Your task to perform on an android device: turn off notifications in google photos Image 0: 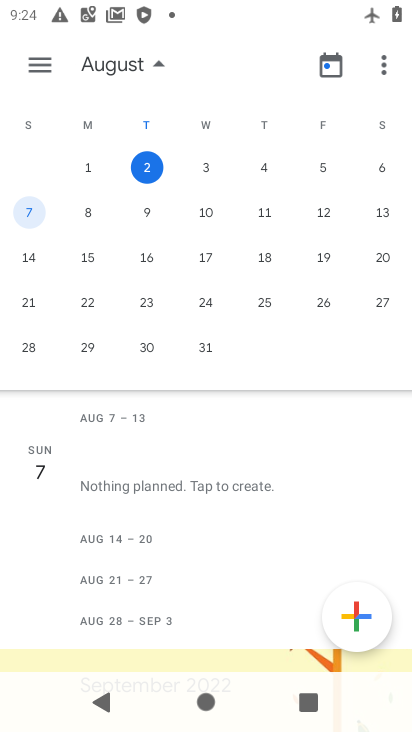
Step 0: press home button
Your task to perform on an android device: turn off notifications in google photos Image 1: 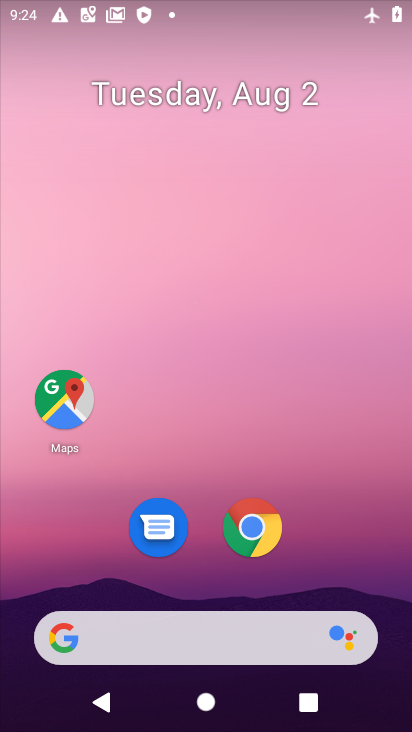
Step 1: drag from (156, 620) to (142, 282)
Your task to perform on an android device: turn off notifications in google photos Image 2: 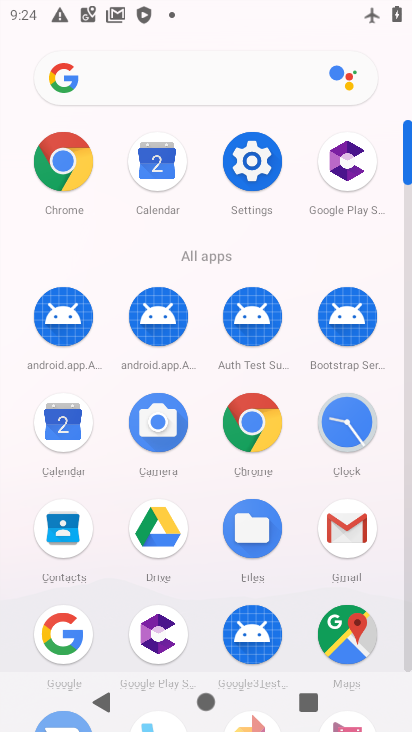
Step 2: drag from (201, 672) to (201, 296)
Your task to perform on an android device: turn off notifications in google photos Image 3: 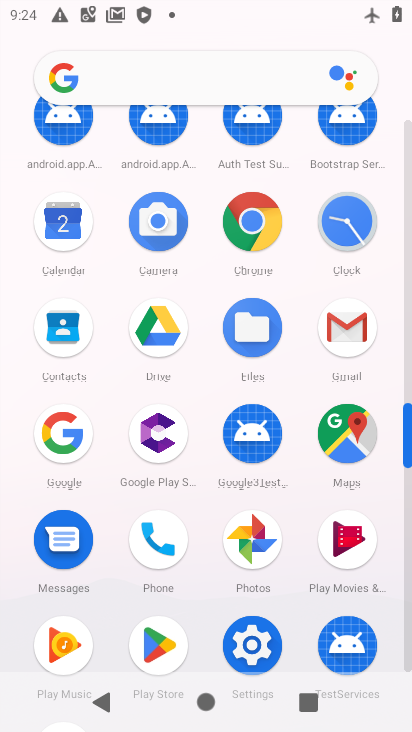
Step 3: click (251, 543)
Your task to perform on an android device: turn off notifications in google photos Image 4: 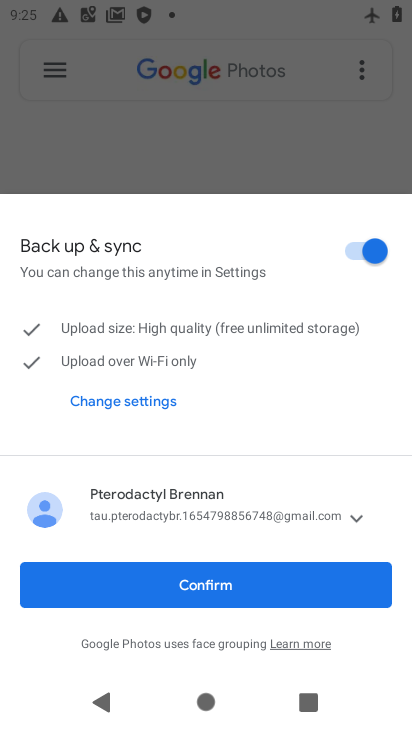
Step 4: click (231, 589)
Your task to perform on an android device: turn off notifications in google photos Image 5: 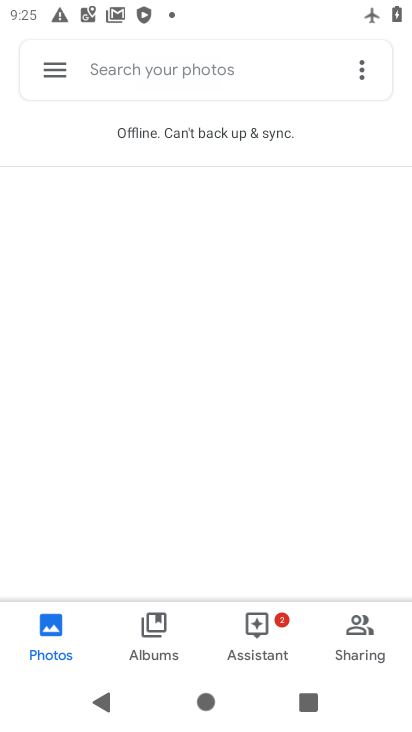
Step 5: click (49, 68)
Your task to perform on an android device: turn off notifications in google photos Image 6: 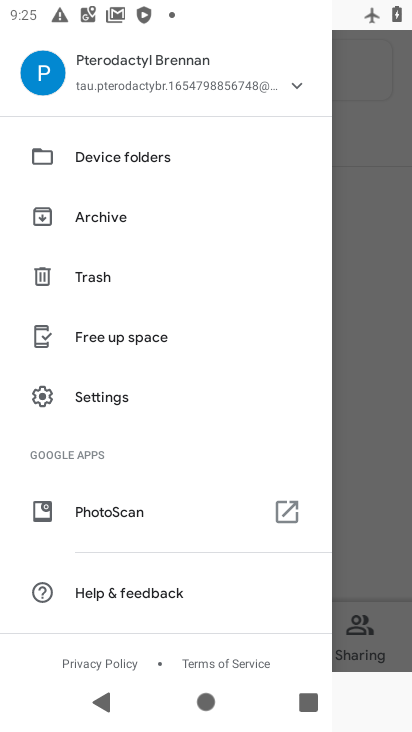
Step 6: drag from (104, 594) to (104, 238)
Your task to perform on an android device: turn off notifications in google photos Image 7: 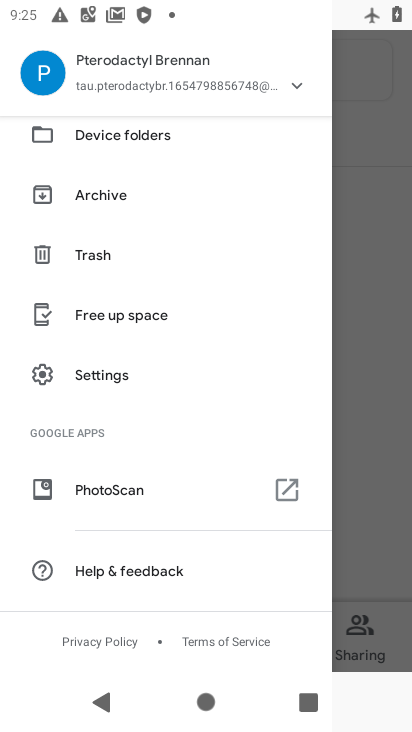
Step 7: click (103, 369)
Your task to perform on an android device: turn off notifications in google photos Image 8: 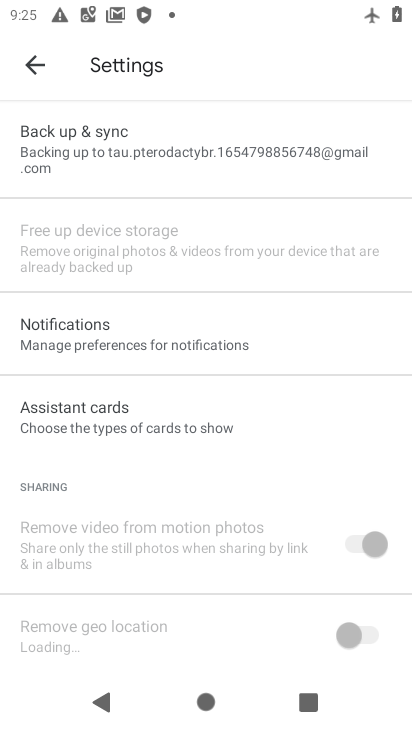
Step 8: click (73, 343)
Your task to perform on an android device: turn off notifications in google photos Image 9: 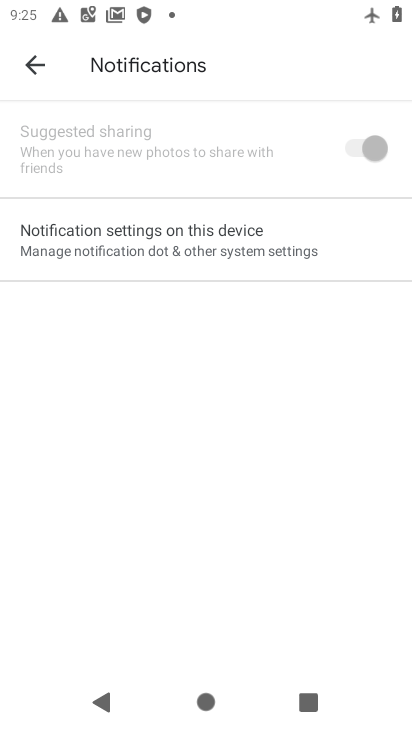
Step 9: click (54, 239)
Your task to perform on an android device: turn off notifications in google photos Image 10: 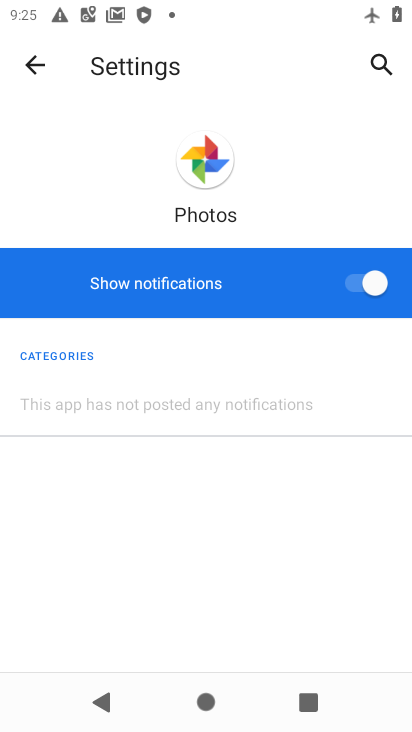
Step 10: click (361, 291)
Your task to perform on an android device: turn off notifications in google photos Image 11: 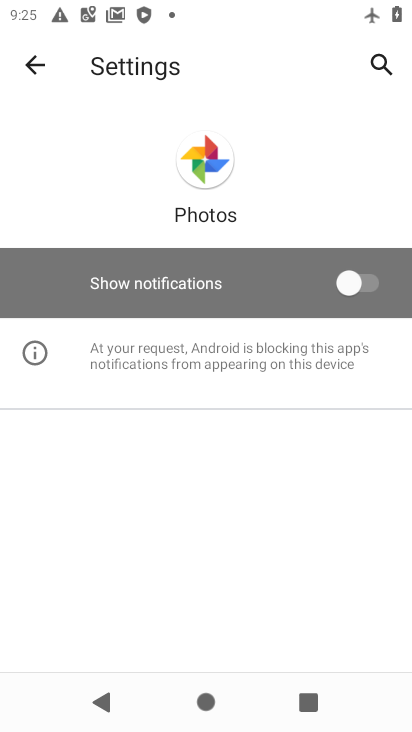
Step 11: task complete